Your task to perform on an android device: Open Chrome and go to the settings page Image 0: 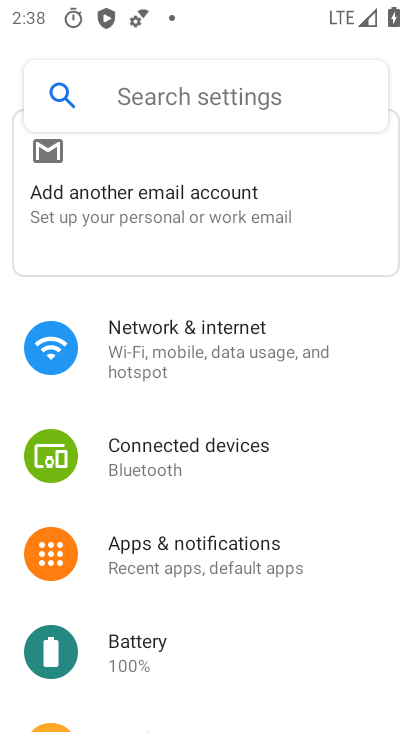
Step 0: press home button
Your task to perform on an android device: Open Chrome and go to the settings page Image 1: 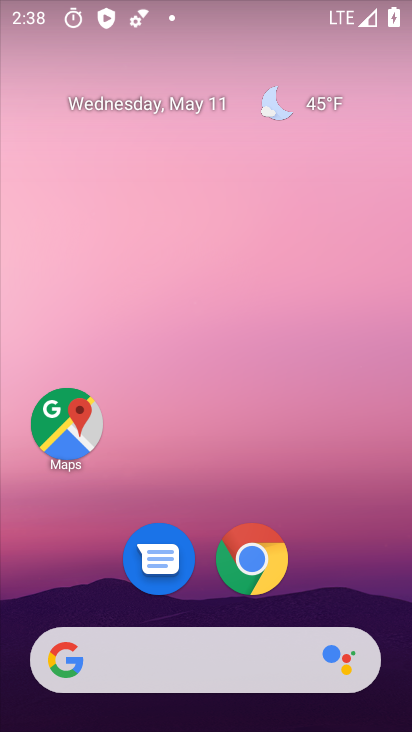
Step 1: click (266, 574)
Your task to perform on an android device: Open Chrome and go to the settings page Image 2: 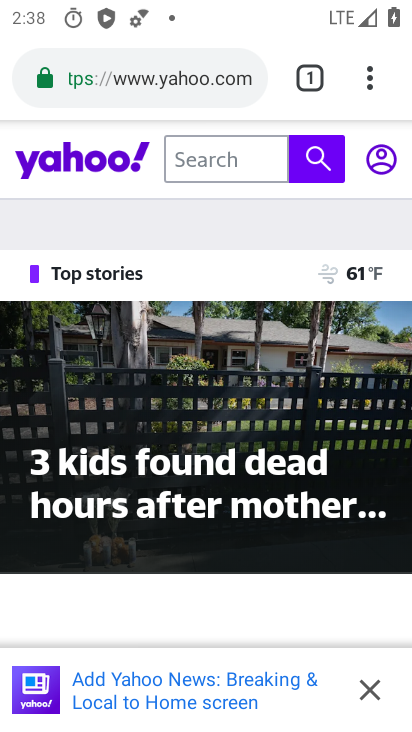
Step 2: click (367, 76)
Your task to perform on an android device: Open Chrome and go to the settings page Image 3: 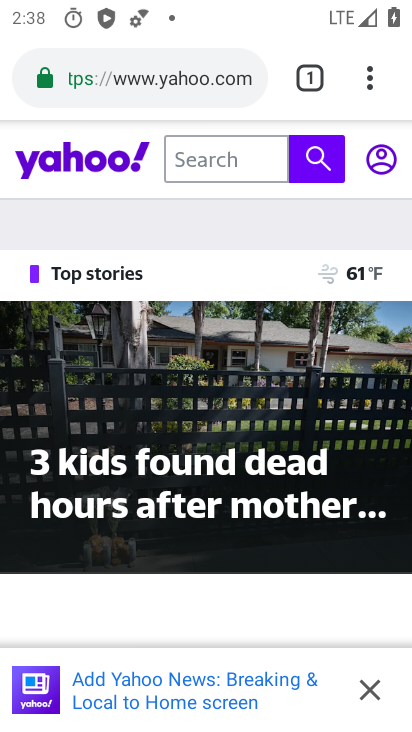
Step 3: click (377, 72)
Your task to perform on an android device: Open Chrome and go to the settings page Image 4: 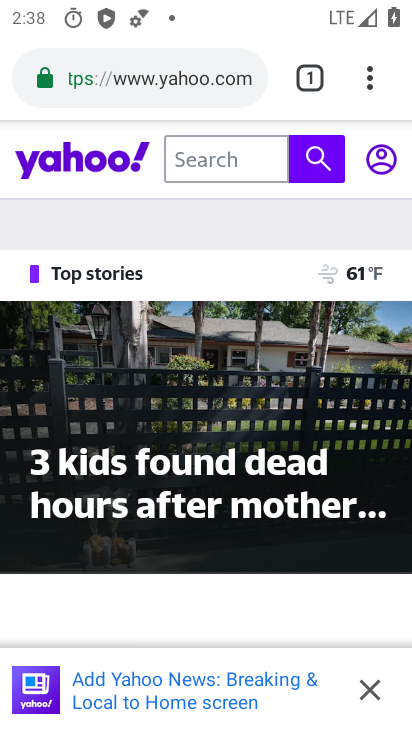
Step 4: click (362, 78)
Your task to perform on an android device: Open Chrome and go to the settings page Image 5: 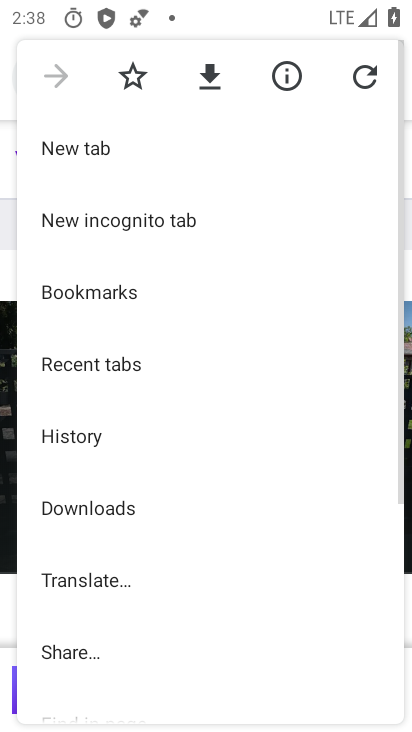
Step 5: drag from (179, 618) to (158, 140)
Your task to perform on an android device: Open Chrome and go to the settings page Image 6: 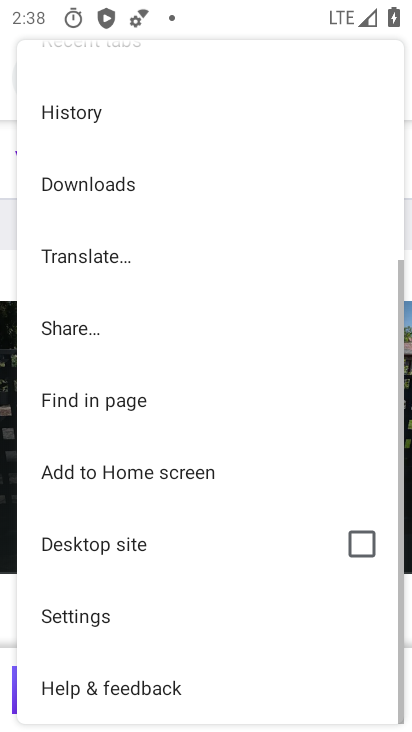
Step 6: click (148, 604)
Your task to perform on an android device: Open Chrome and go to the settings page Image 7: 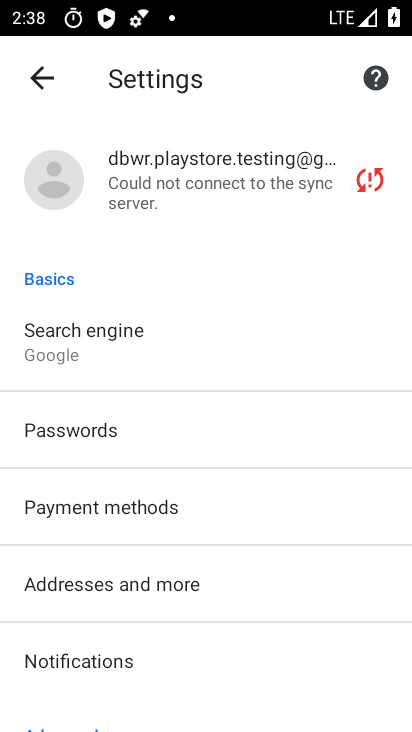
Step 7: task complete